Your task to perform on an android device: change notification settings in the gmail app Image 0: 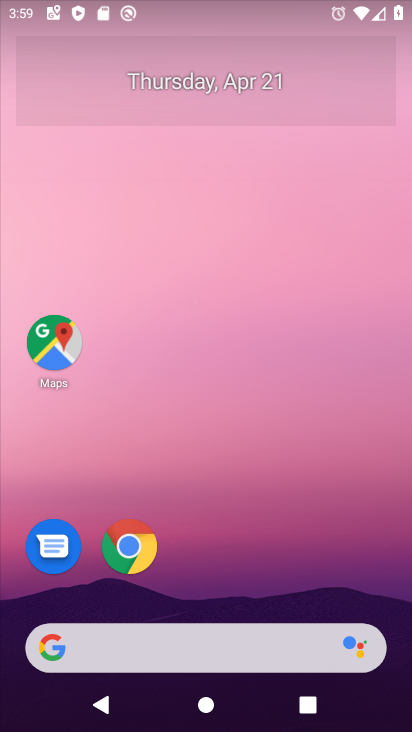
Step 0: drag from (256, 545) to (162, 58)
Your task to perform on an android device: change notification settings in the gmail app Image 1: 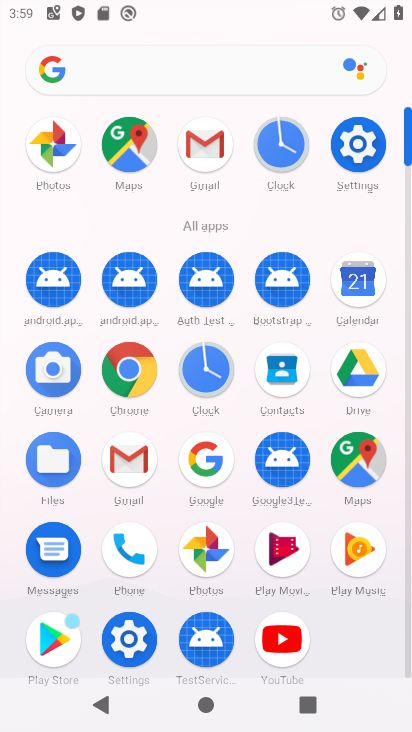
Step 1: click (208, 155)
Your task to perform on an android device: change notification settings in the gmail app Image 2: 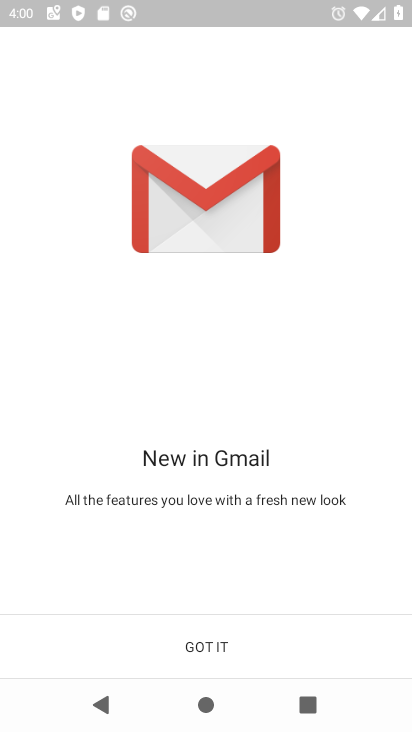
Step 2: click (319, 637)
Your task to perform on an android device: change notification settings in the gmail app Image 3: 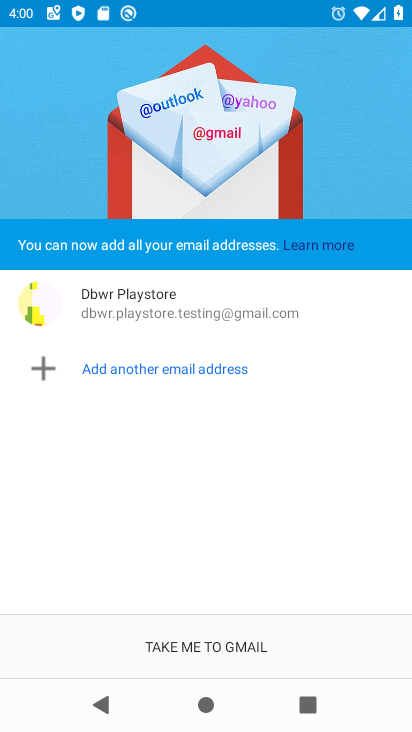
Step 3: click (140, 648)
Your task to perform on an android device: change notification settings in the gmail app Image 4: 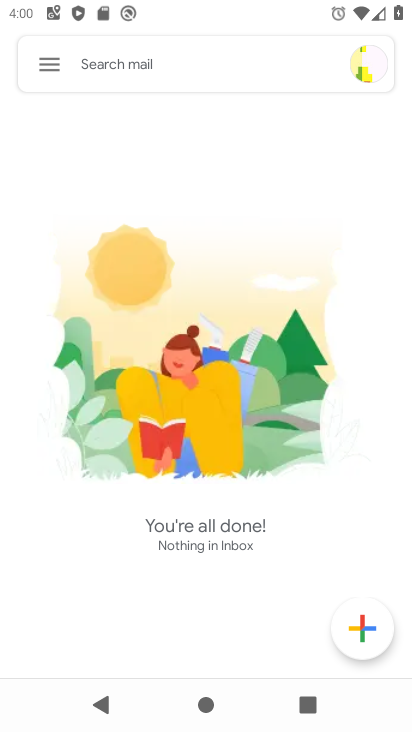
Step 4: click (51, 66)
Your task to perform on an android device: change notification settings in the gmail app Image 5: 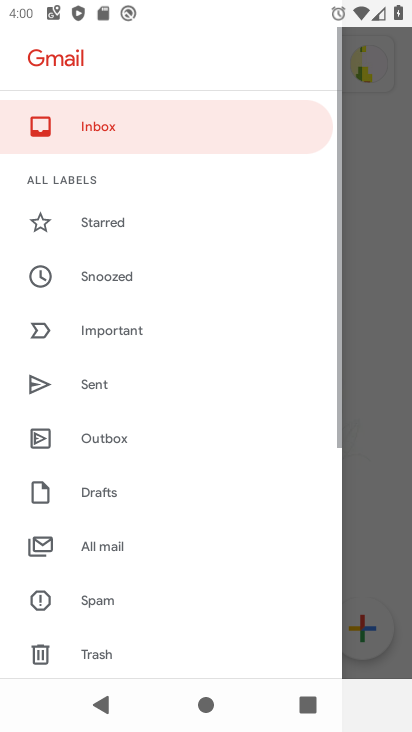
Step 5: drag from (112, 527) to (206, 72)
Your task to perform on an android device: change notification settings in the gmail app Image 6: 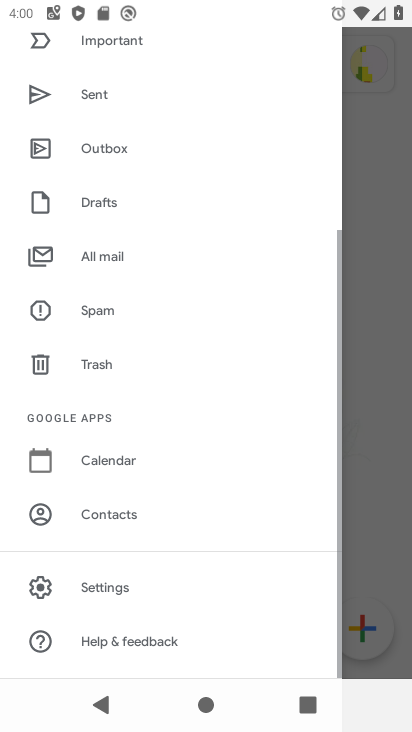
Step 6: drag from (188, 398) to (234, 239)
Your task to perform on an android device: change notification settings in the gmail app Image 7: 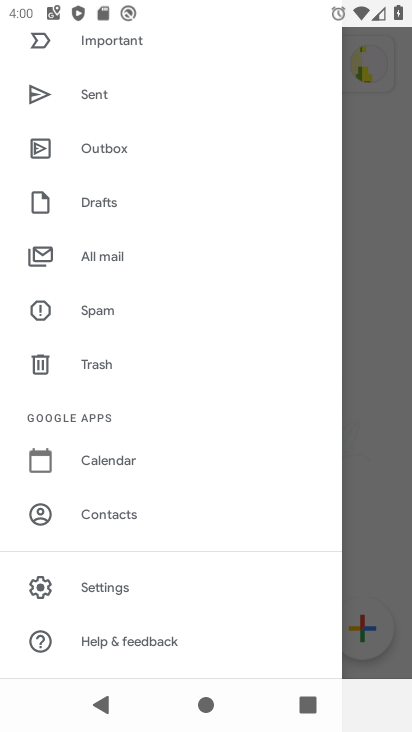
Step 7: click (123, 576)
Your task to perform on an android device: change notification settings in the gmail app Image 8: 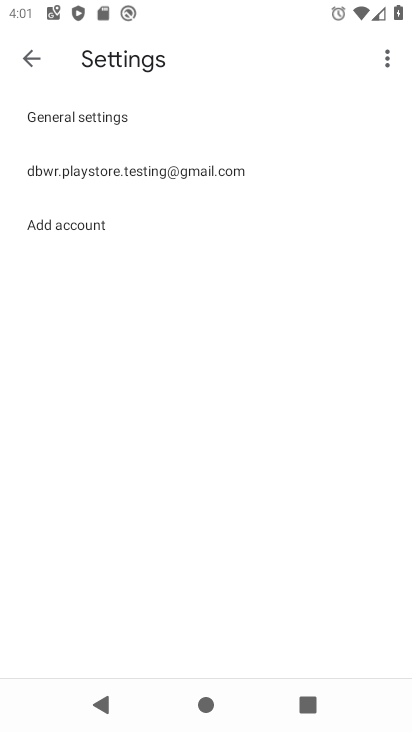
Step 8: click (167, 175)
Your task to perform on an android device: change notification settings in the gmail app Image 9: 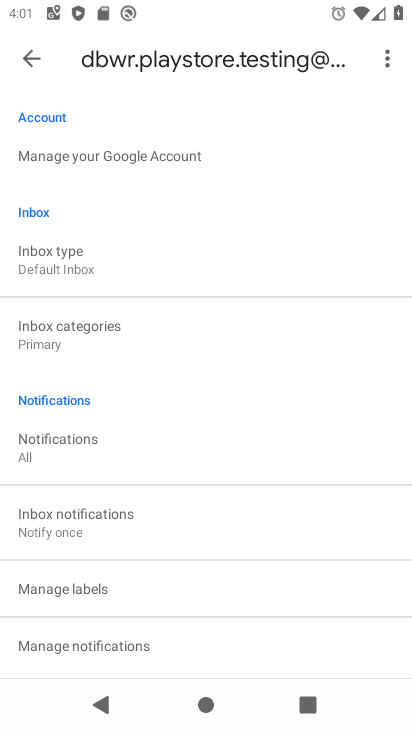
Step 9: click (124, 642)
Your task to perform on an android device: change notification settings in the gmail app Image 10: 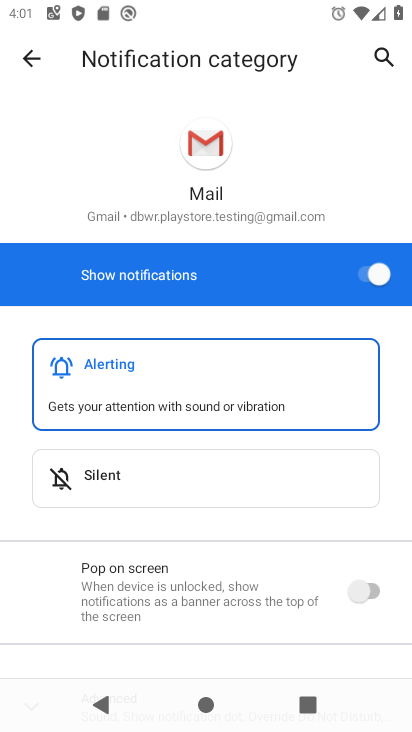
Step 10: click (372, 276)
Your task to perform on an android device: change notification settings in the gmail app Image 11: 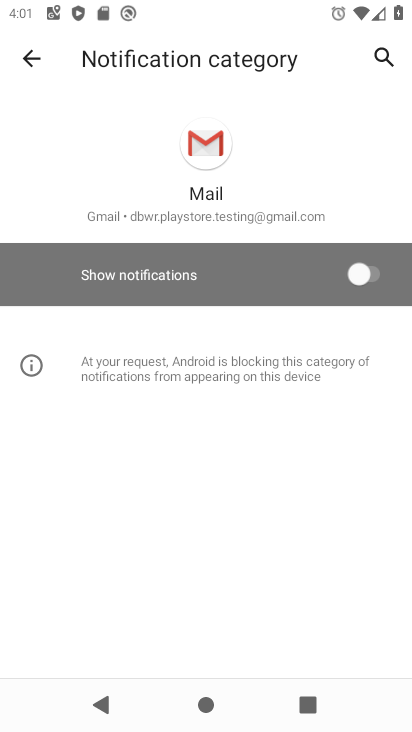
Step 11: task complete